Your task to perform on an android device: turn notification dots on Image 0: 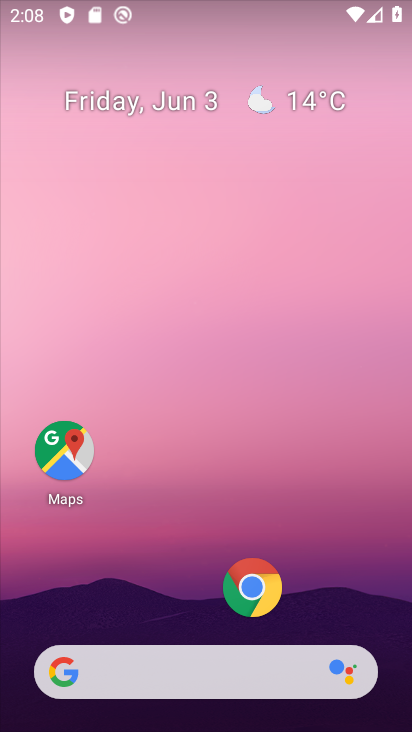
Step 0: drag from (170, 506) to (228, 65)
Your task to perform on an android device: turn notification dots on Image 1: 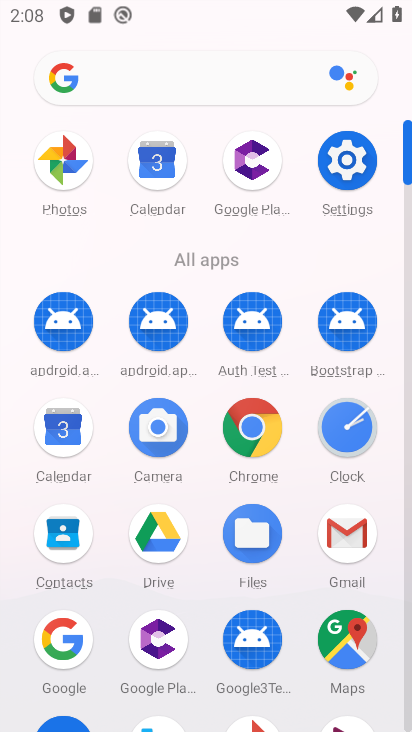
Step 1: click (347, 161)
Your task to perform on an android device: turn notification dots on Image 2: 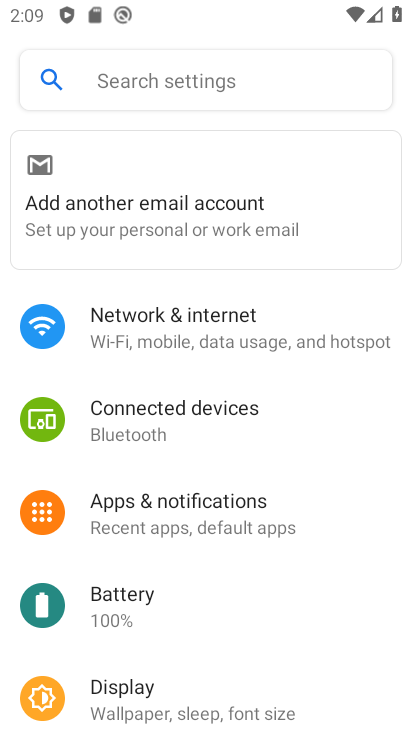
Step 2: click (173, 510)
Your task to perform on an android device: turn notification dots on Image 3: 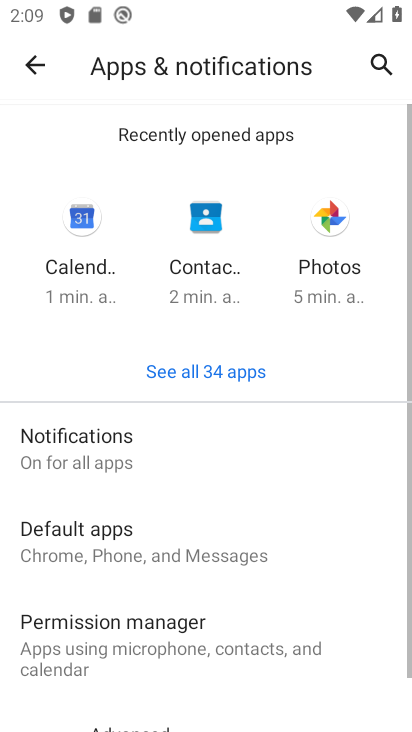
Step 3: click (102, 447)
Your task to perform on an android device: turn notification dots on Image 4: 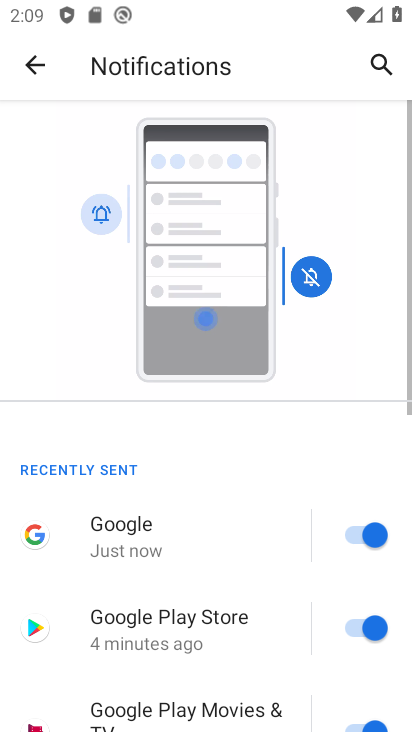
Step 4: drag from (130, 645) to (203, 118)
Your task to perform on an android device: turn notification dots on Image 5: 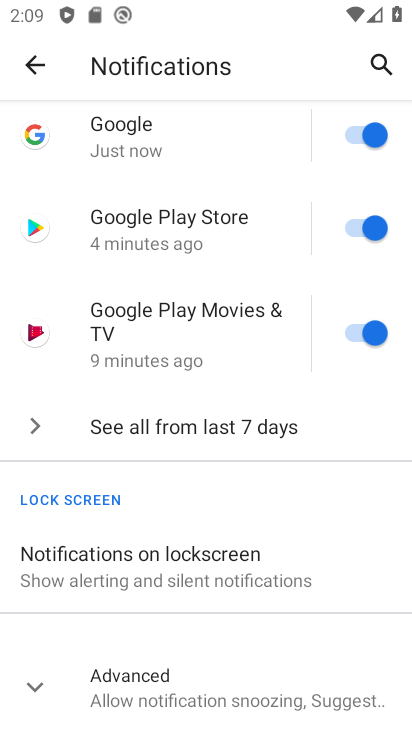
Step 5: drag from (156, 676) to (166, 249)
Your task to perform on an android device: turn notification dots on Image 6: 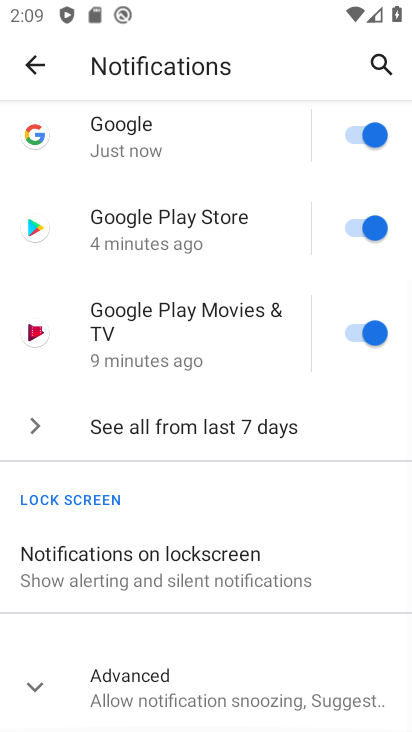
Step 6: click (138, 671)
Your task to perform on an android device: turn notification dots on Image 7: 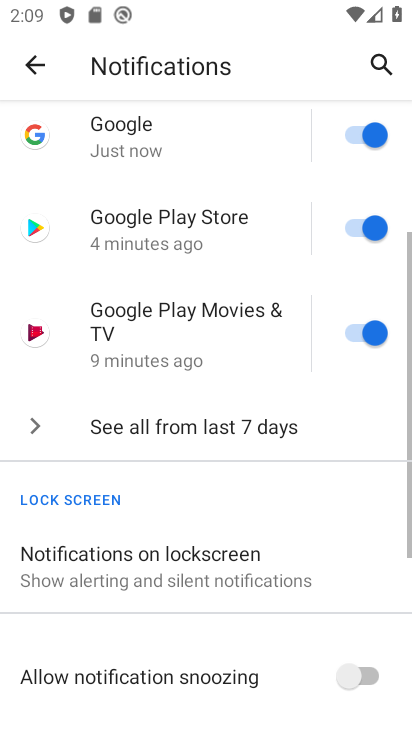
Step 7: task complete